Your task to perform on an android device: Open the phone app and click the voicemail tab. Image 0: 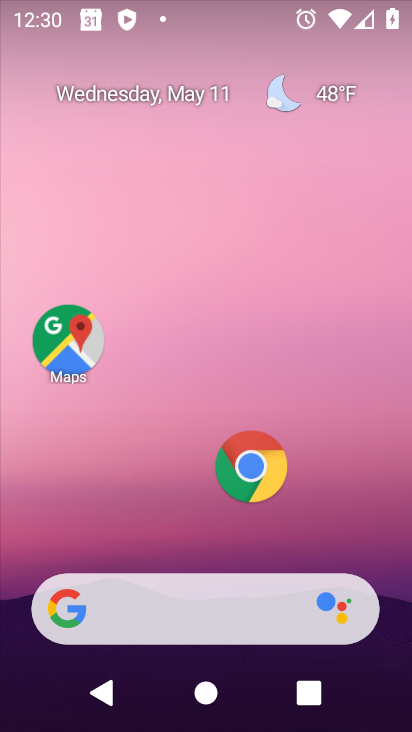
Step 0: drag from (134, 562) to (231, 92)
Your task to perform on an android device: Open the phone app and click the voicemail tab. Image 1: 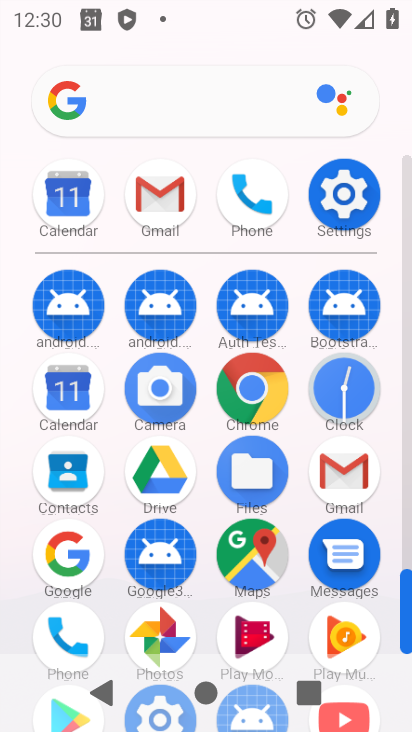
Step 1: click (262, 192)
Your task to perform on an android device: Open the phone app and click the voicemail tab. Image 2: 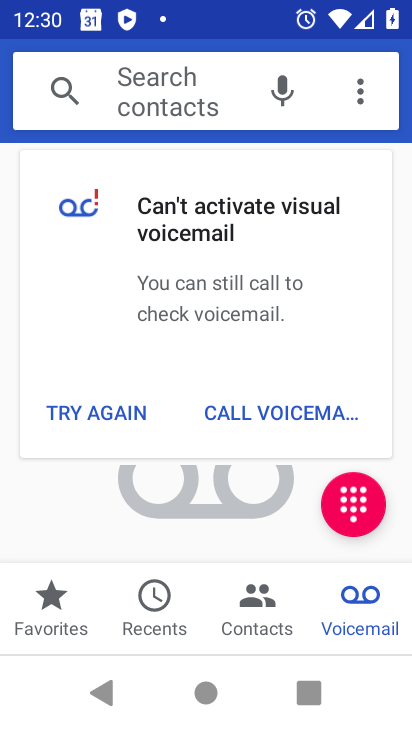
Step 2: click (363, 627)
Your task to perform on an android device: Open the phone app and click the voicemail tab. Image 3: 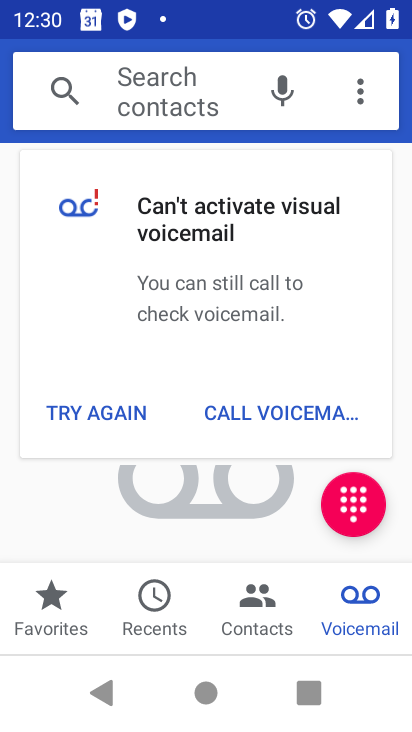
Step 3: task complete